Your task to perform on an android device: What's the weather going to be tomorrow? Image 0: 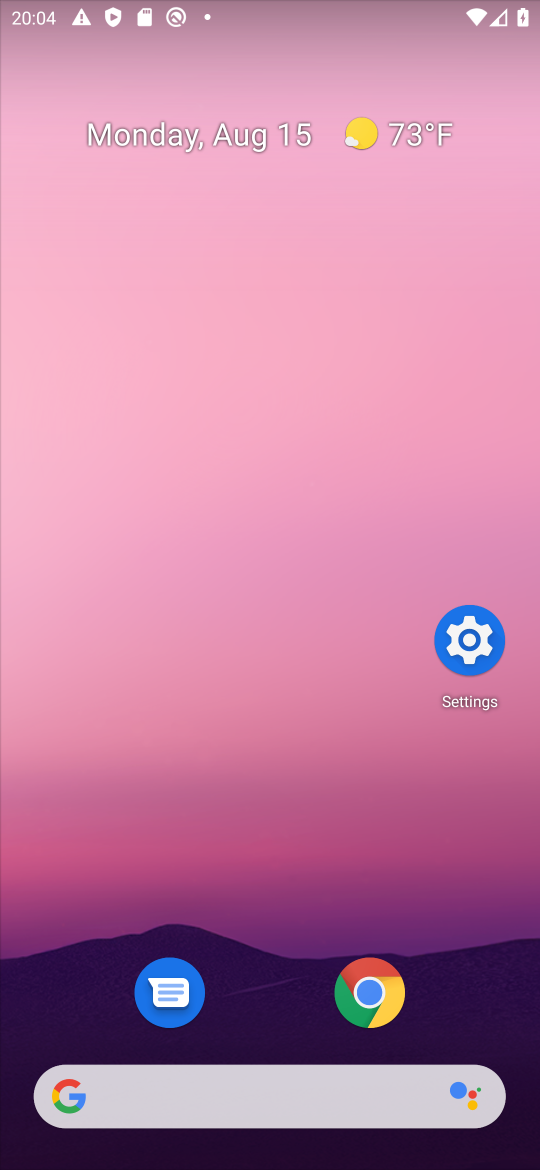
Step 0: click (210, 1087)
Your task to perform on an android device: What's the weather going to be tomorrow? Image 1: 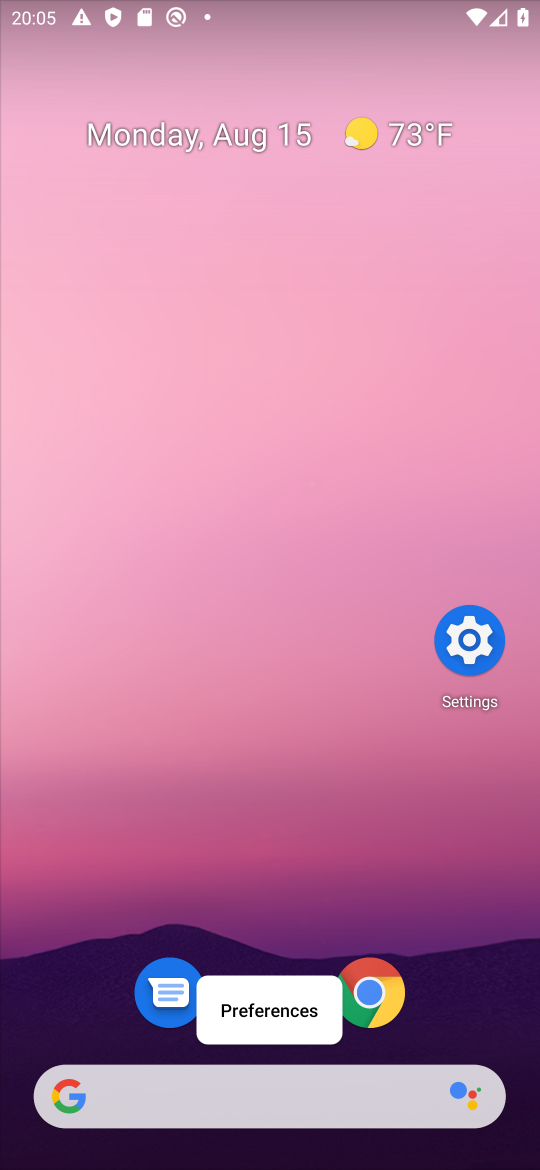
Step 1: click (396, 129)
Your task to perform on an android device: What's the weather going to be tomorrow? Image 2: 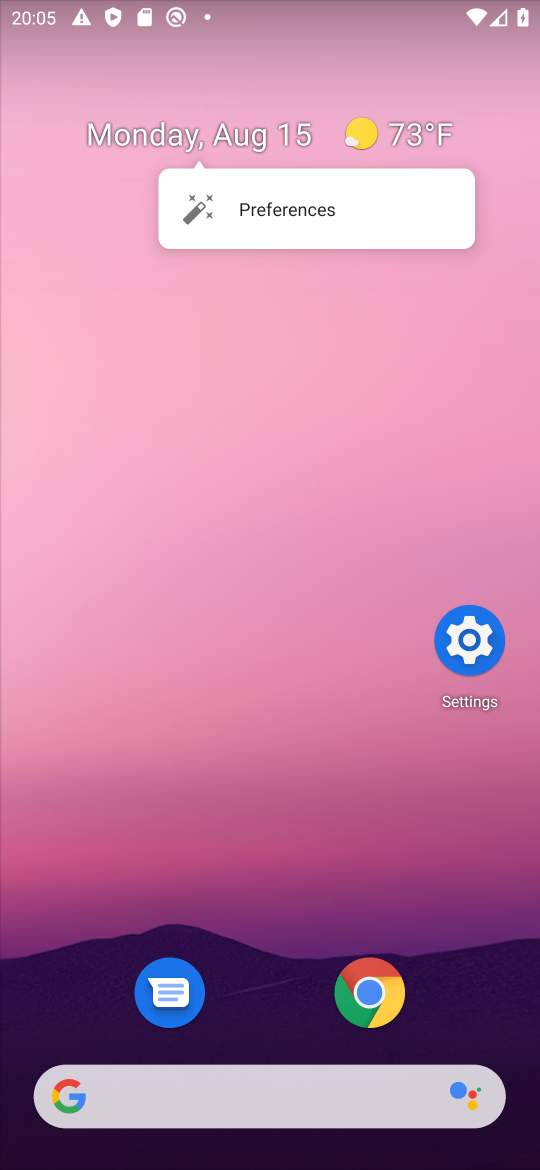
Step 2: click (413, 133)
Your task to perform on an android device: What's the weather going to be tomorrow? Image 3: 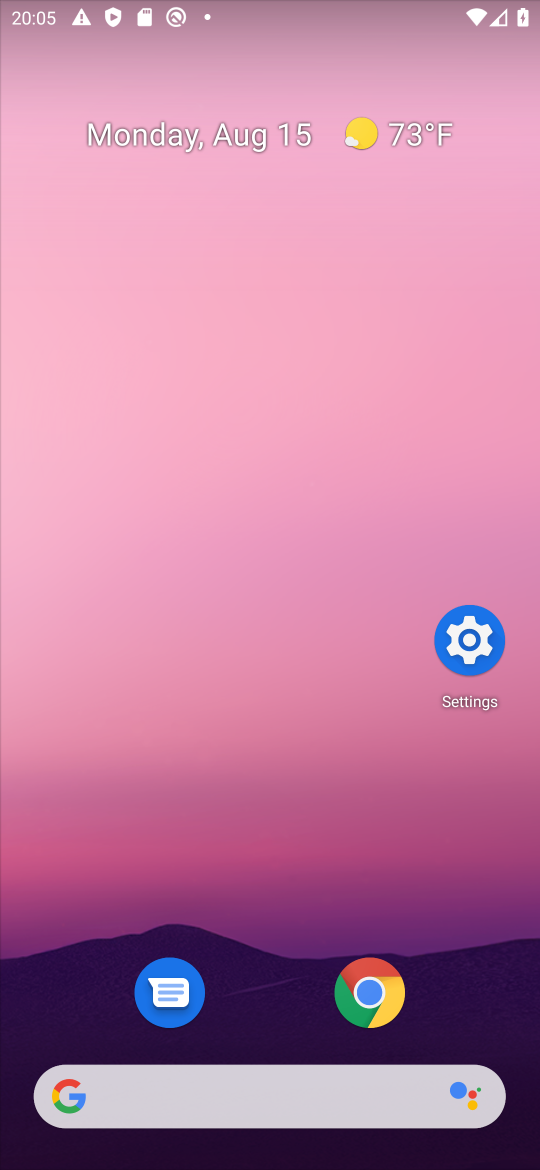
Step 3: click (366, 135)
Your task to perform on an android device: What's the weather going to be tomorrow? Image 4: 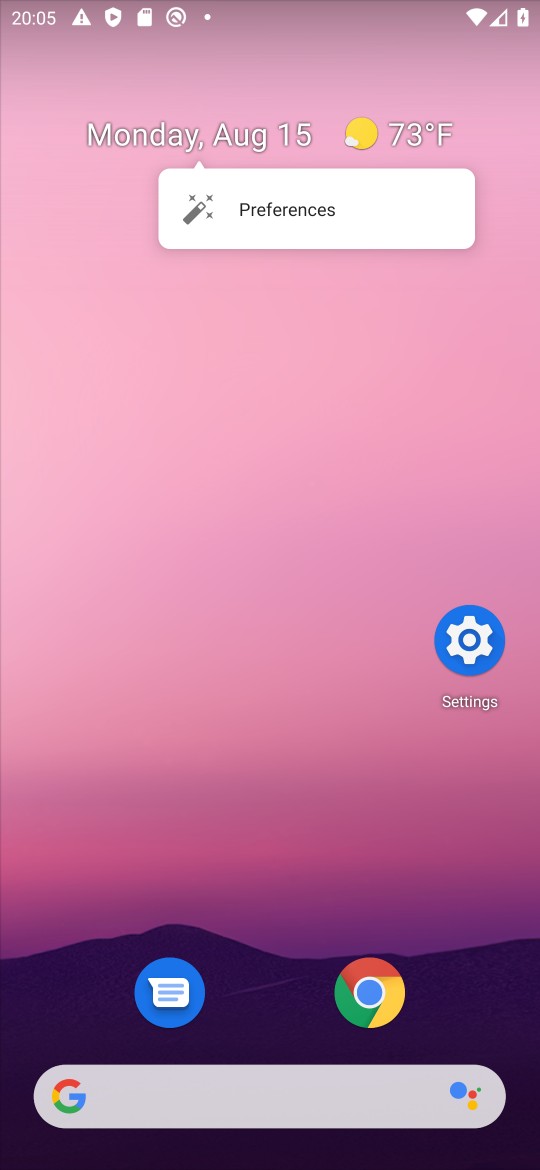
Step 4: click (363, 140)
Your task to perform on an android device: What's the weather going to be tomorrow? Image 5: 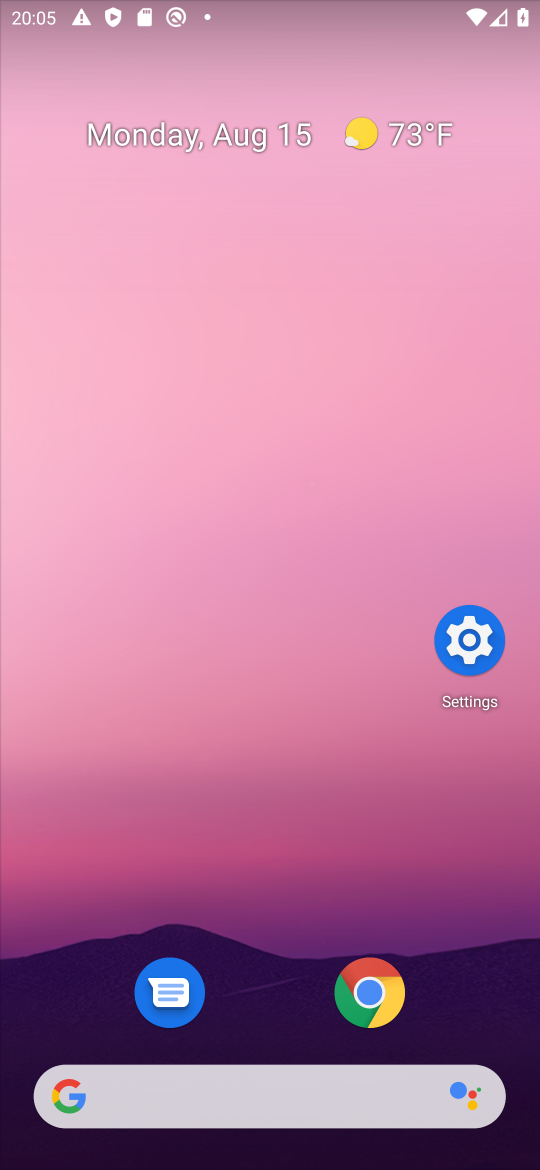
Step 5: click (395, 131)
Your task to perform on an android device: What's the weather going to be tomorrow? Image 6: 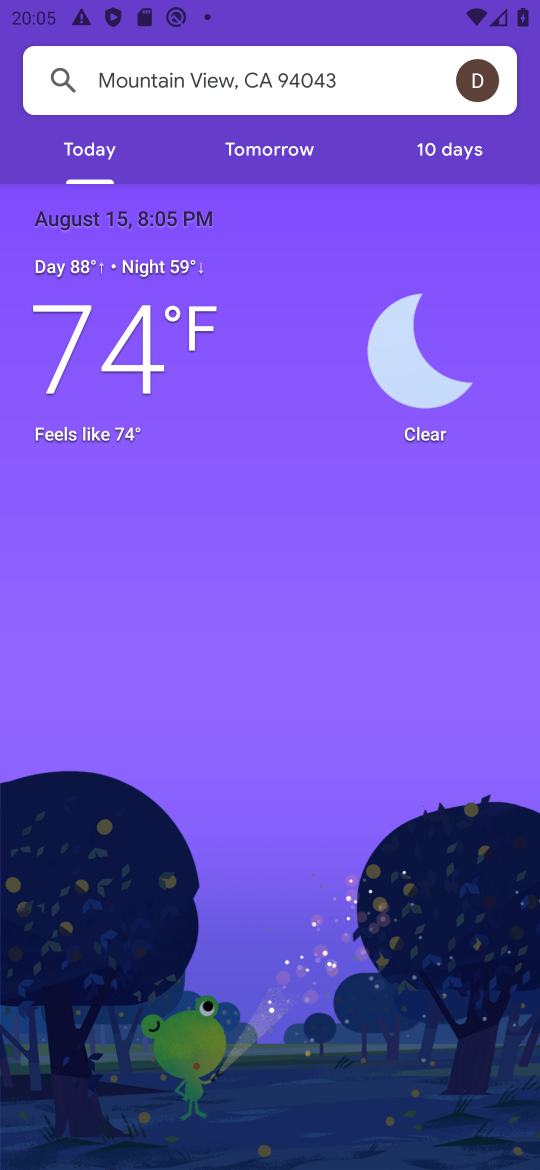
Step 6: click (267, 144)
Your task to perform on an android device: What's the weather going to be tomorrow? Image 7: 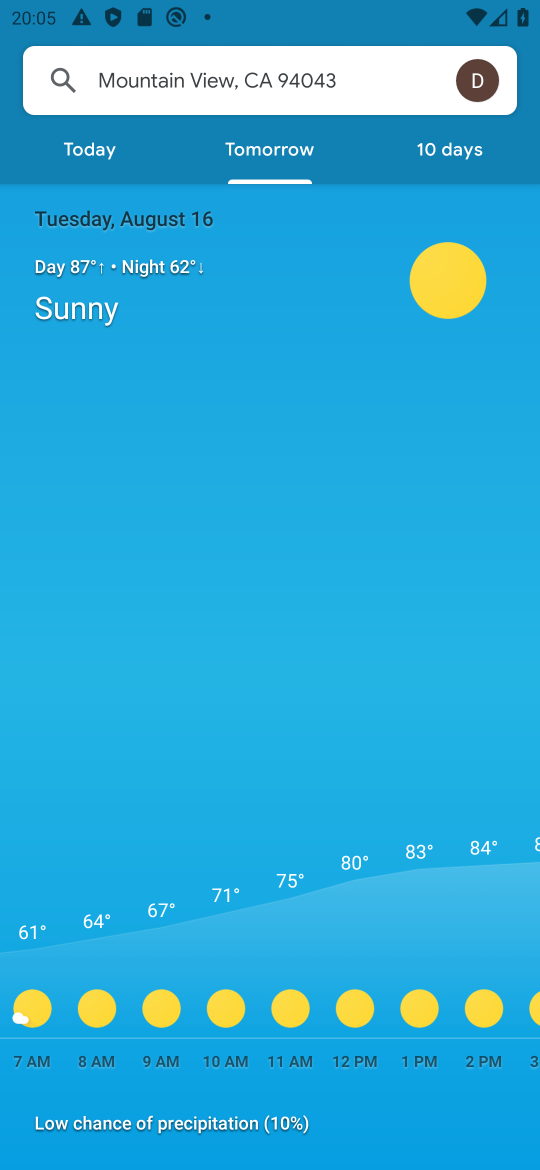
Step 7: task complete